Your task to perform on an android device: toggle airplane mode Image 0: 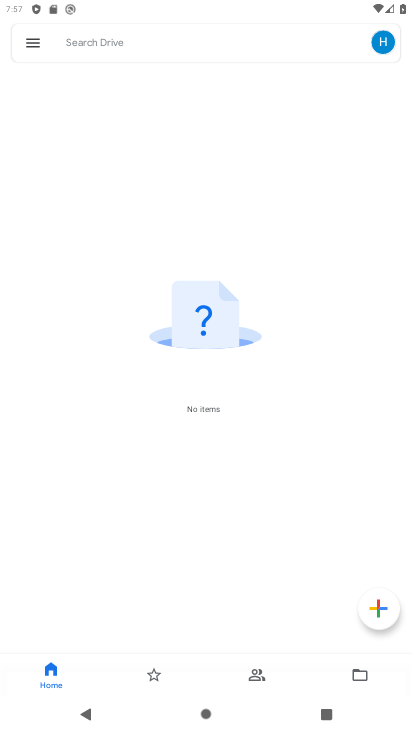
Step 0: press home button
Your task to perform on an android device: toggle airplane mode Image 1: 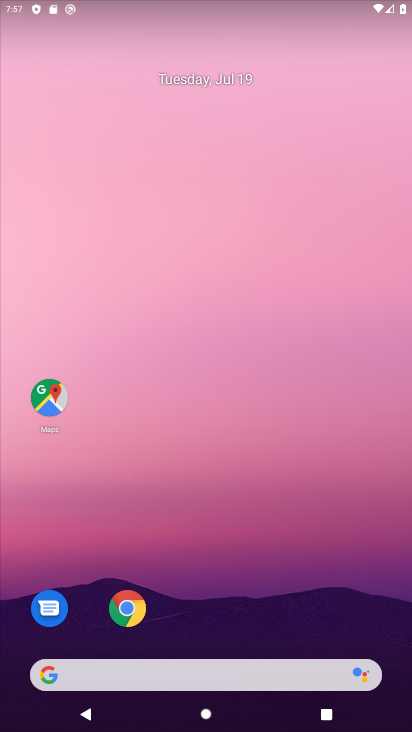
Step 1: drag from (197, 671) to (214, 203)
Your task to perform on an android device: toggle airplane mode Image 2: 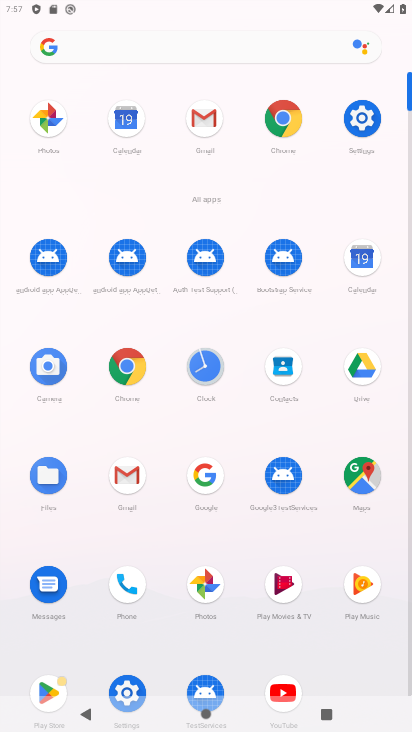
Step 2: click (363, 130)
Your task to perform on an android device: toggle airplane mode Image 3: 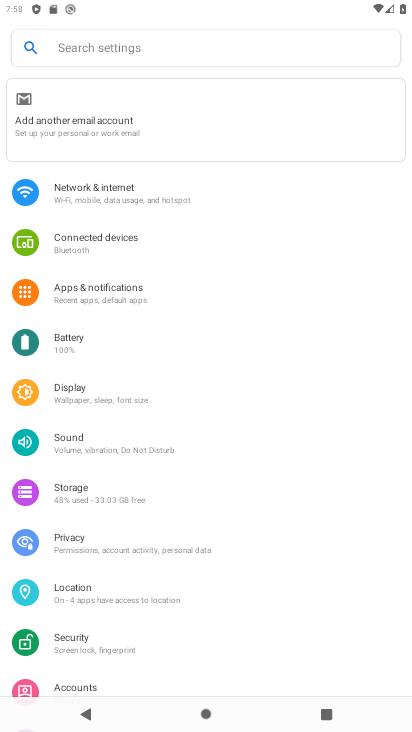
Step 3: click (108, 201)
Your task to perform on an android device: toggle airplane mode Image 4: 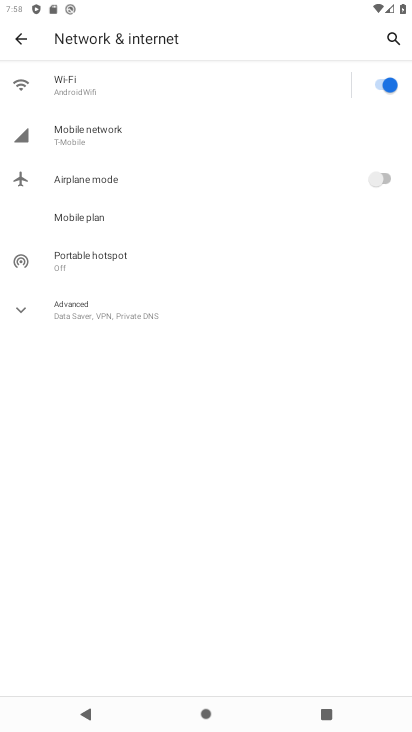
Step 4: click (382, 178)
Your task to perform on an android device: toggle airplane mode Image 5: 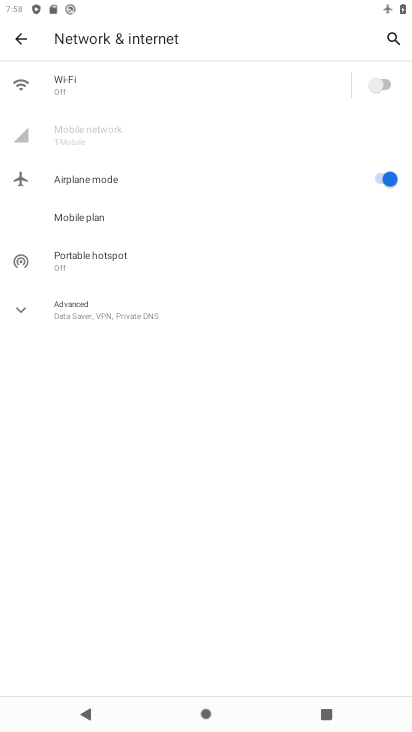
Step 5: task complete